Your task to perform on an android device: change text size in settings app Image 0: 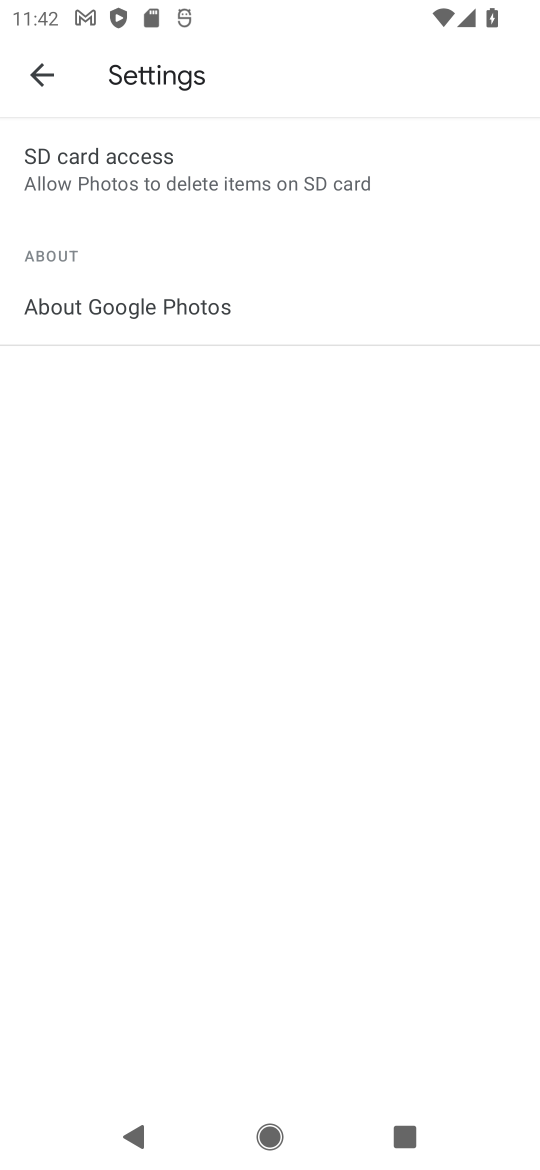
Step 0: press back button
Your task to perform on an android device: change text size in settings app Image 1: 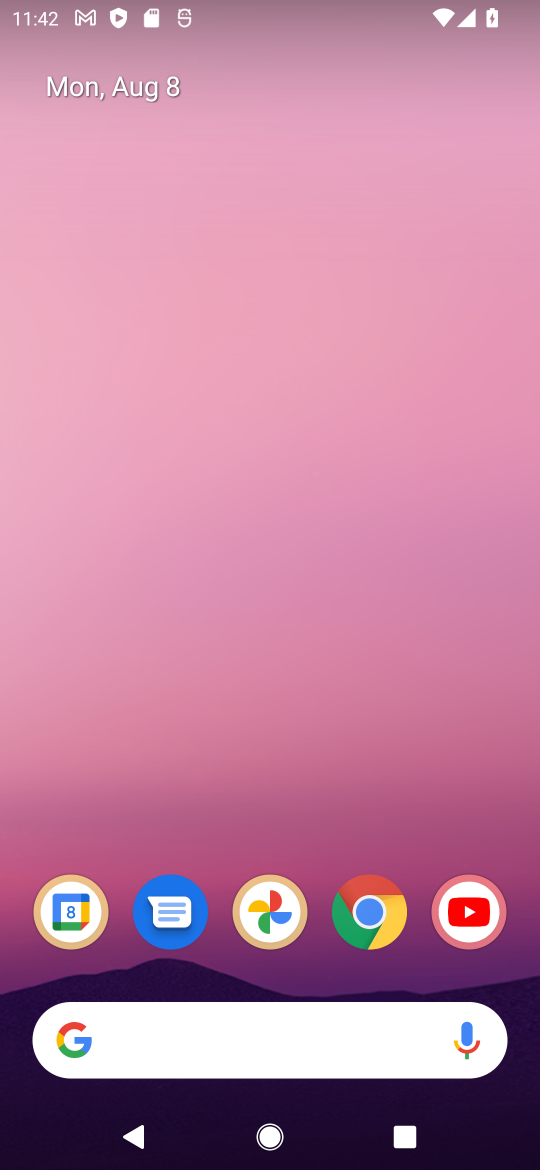
Step 1: drag from (291, 904) to (432, 40)
Your task to perform on an android device: change text size in settings app Image 2: 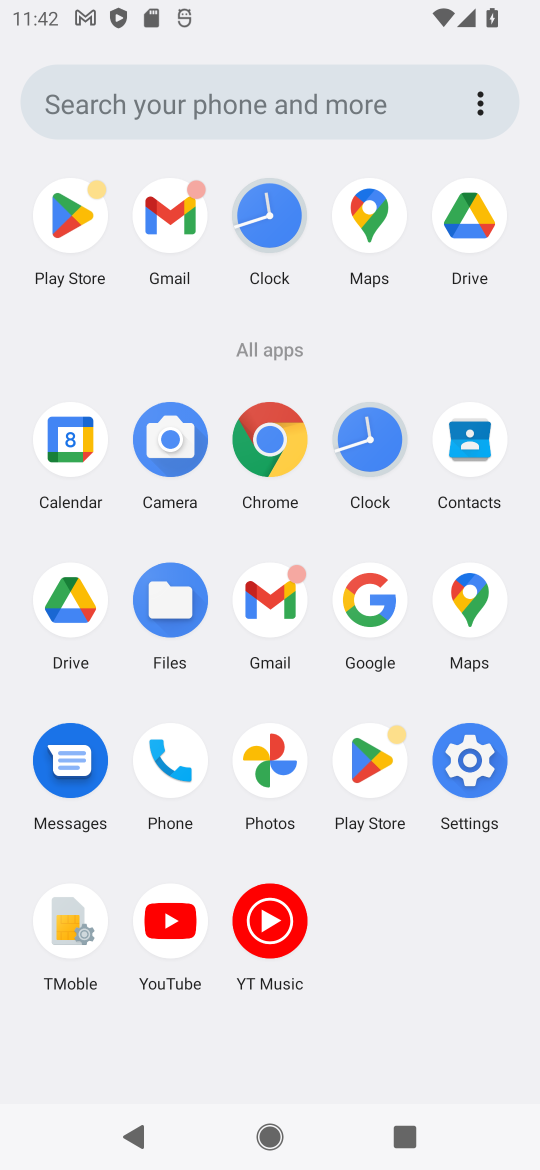
Step 2: click (478, 771)
Your task to perform on an android device: change text size in settings app Image 3: 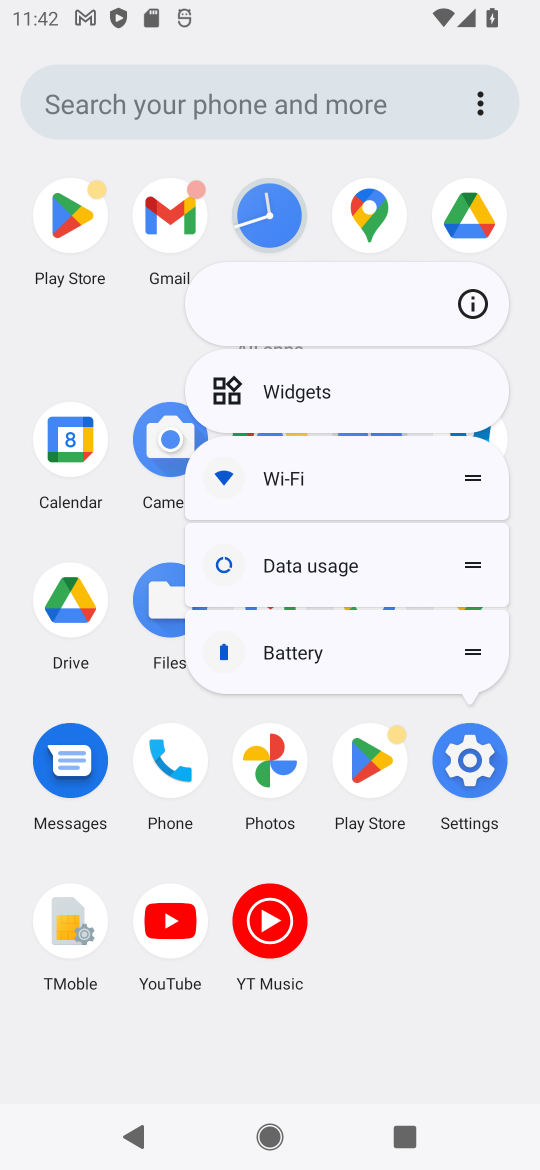
Step 3: click (472, 759)
Your task to perform on an android device: change text size in settings app Image 4: 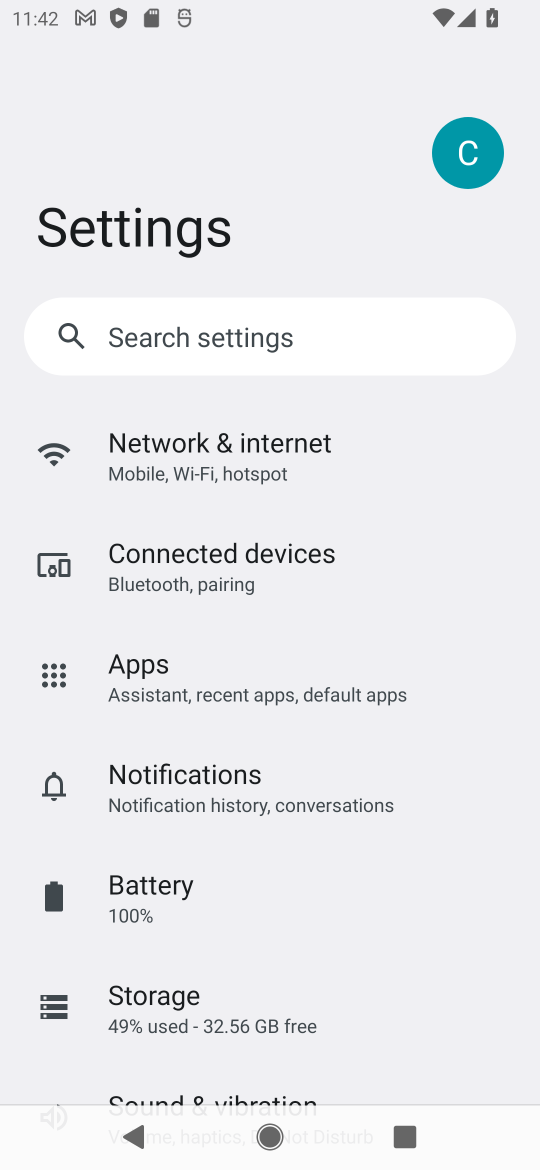
Step 4: click (196, 320)
Your task to perform on an android device: change text size in settings app Image 5: 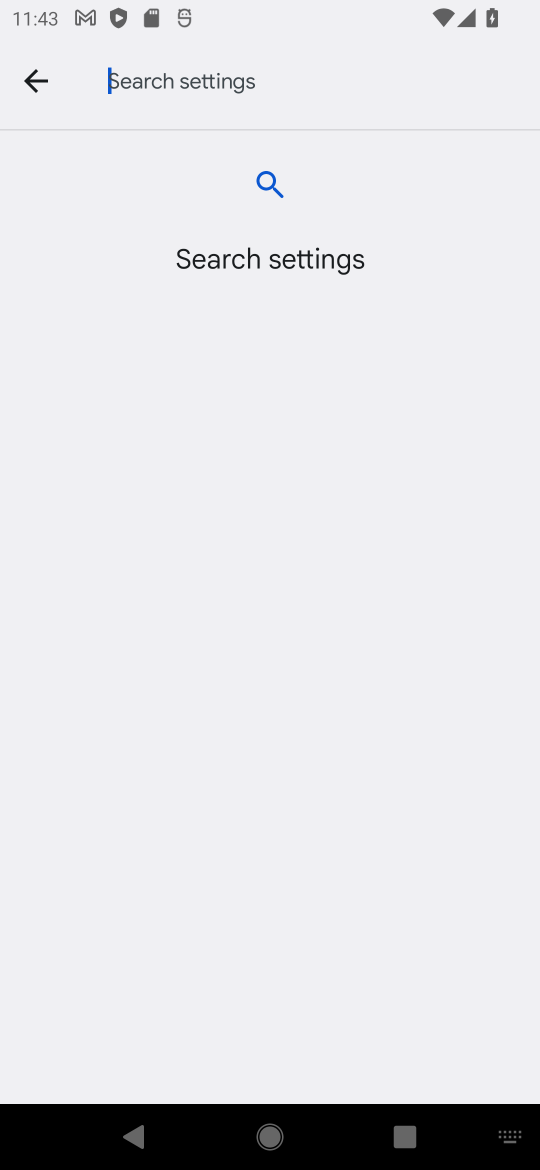
Step 5: type "text size"
Your task to perform on an android device: change text size in settings app Image 6: 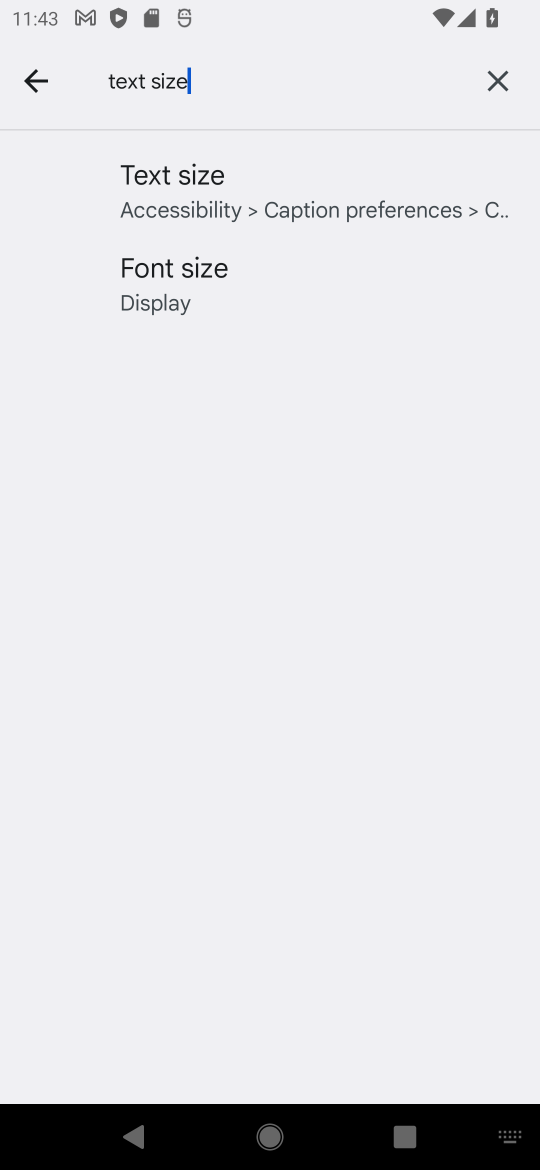
Step 6: click (200, 289)
Your task to perform on an android device: change text size in settings app Image 7: 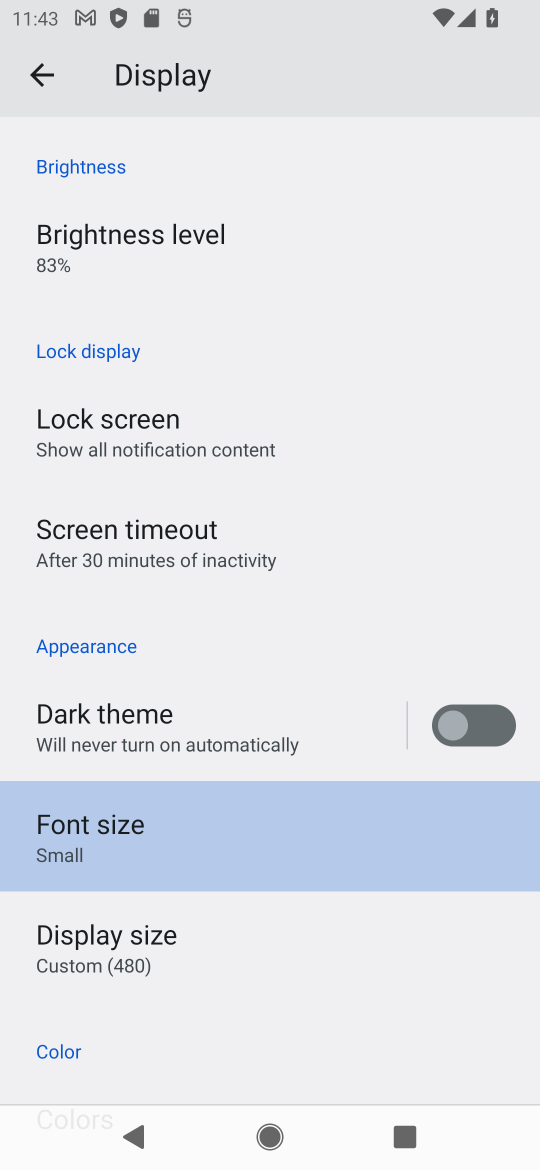
Step 7: click (93, 824)
Your task to perform on an android device: change text size in settings app Image 8: 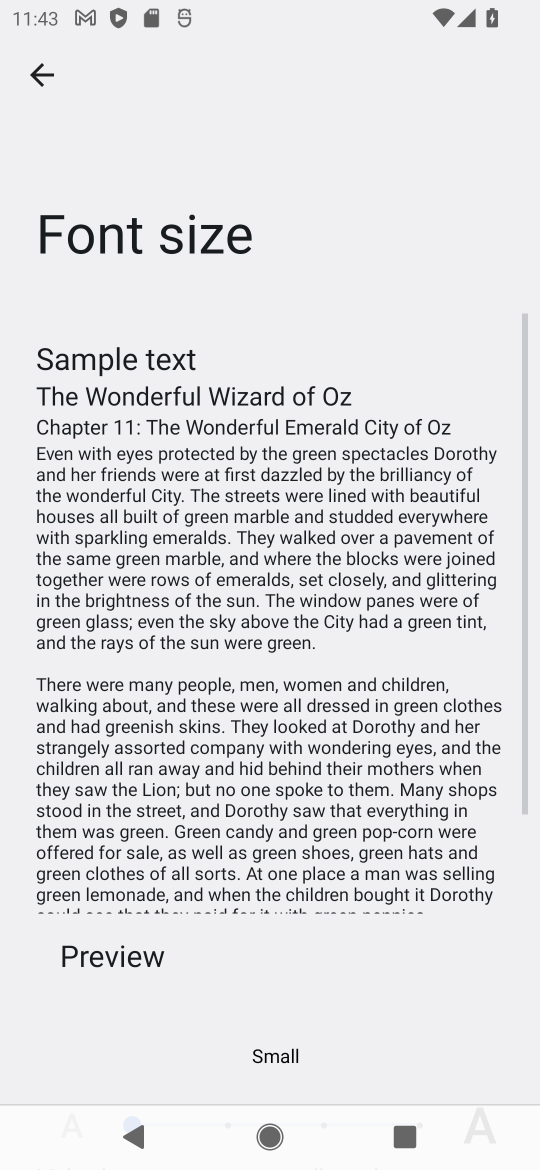
Step 8: drag from (296, 958) to (399, 278)
Your task to perform on an android device: change text size in settings app Image 9: 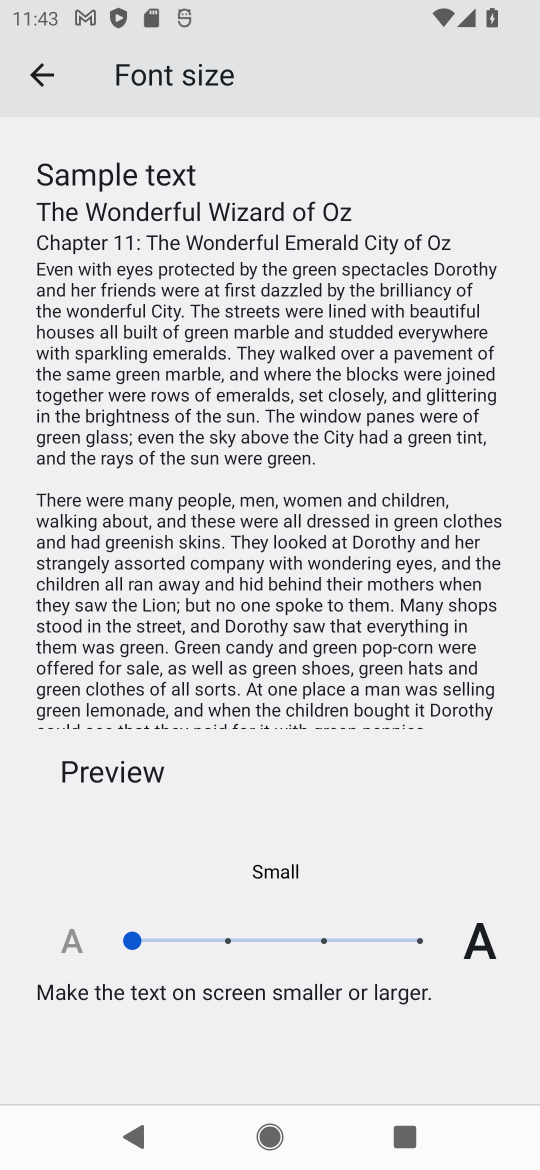
Step 9: click (225, 939)
Your task to perform on an android device: change text size in settings app Image 10: 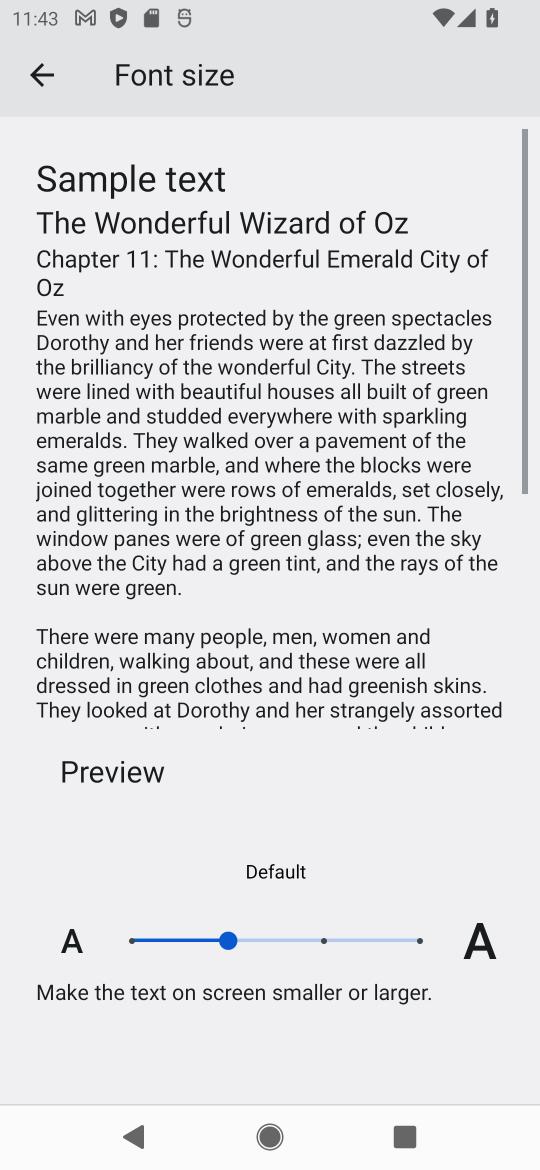
Step 10: click (322, 940)
Your task to perform on an android device: change text size in settings app Image 11: 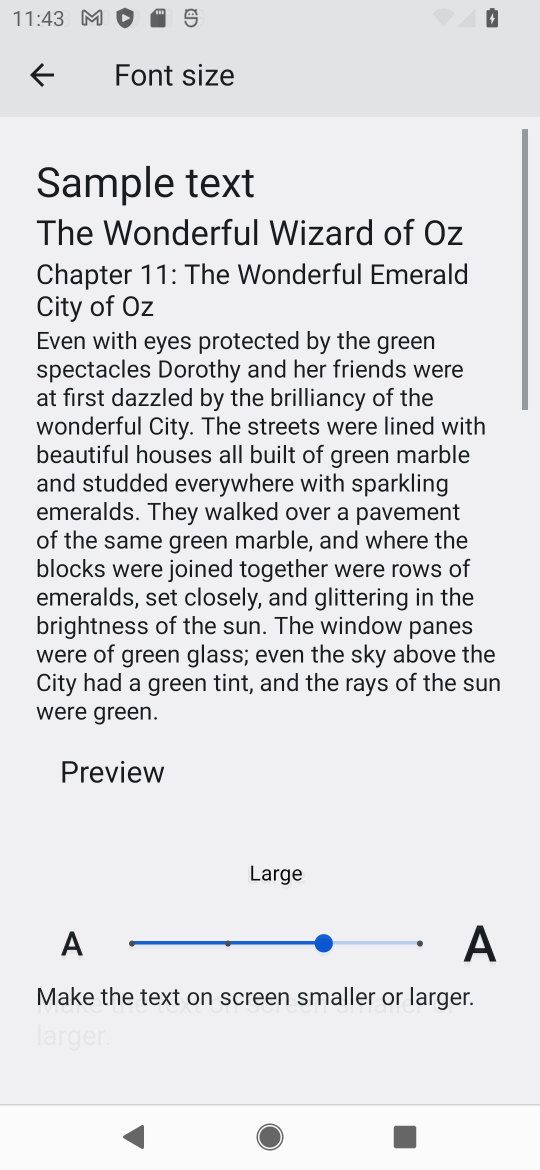
Step 11: task complete